Your task to perform on an android device: turn off data saver in the chrome app Image 0: 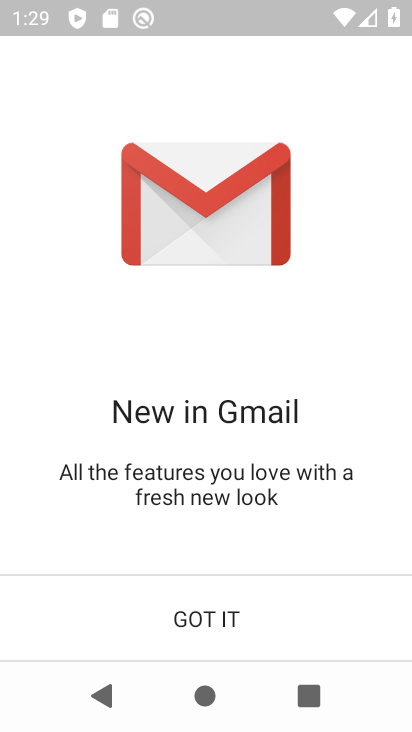
Step 0: drag from (268, 376) to (271, 241)
Your task to perform on an android device: turn off data saver in the chrome app Image 1: 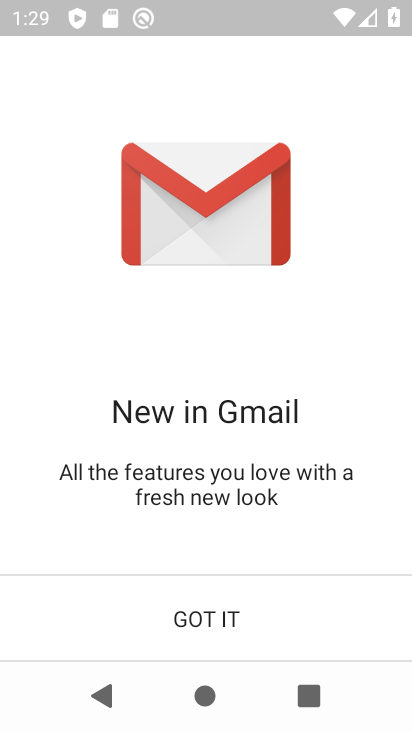
Step 1: drag from (203, 478) to (287, 167)
Your task to perform on an android device: turn off data saver in the chrome app Image 2: 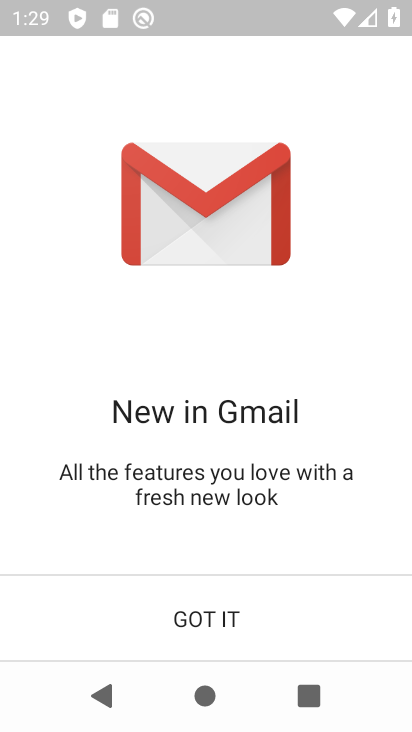
Step 2: drag from (177, 482) to (263, 189)
Your task to perform on an android device: turn off data saver in the chrome app Image 3: 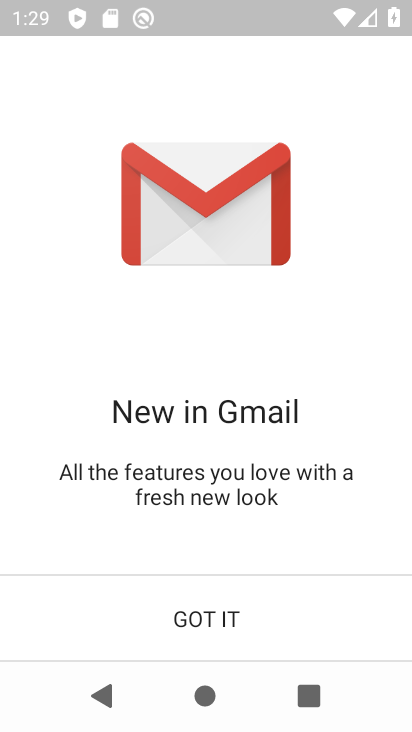
Step 3: drag from (303, 408) to (281, 264)
Your task to perform on an android device: turn off data saver in the chrome app Image 4: 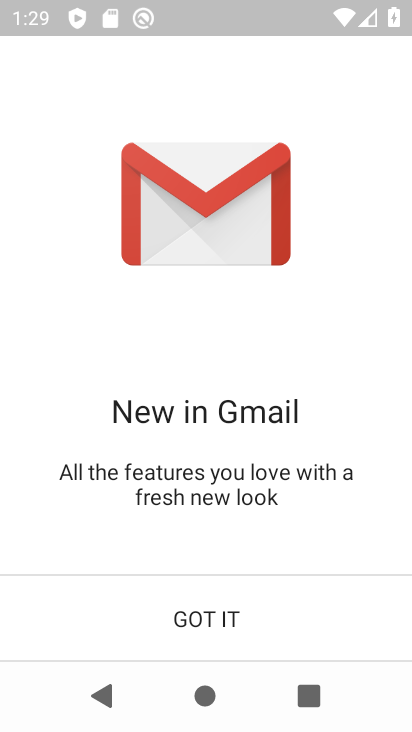
Step 4: drag from (294, 497) to (342, 266)
Your task to perform on an android device: turn off data saver in the chrome app Image 5: 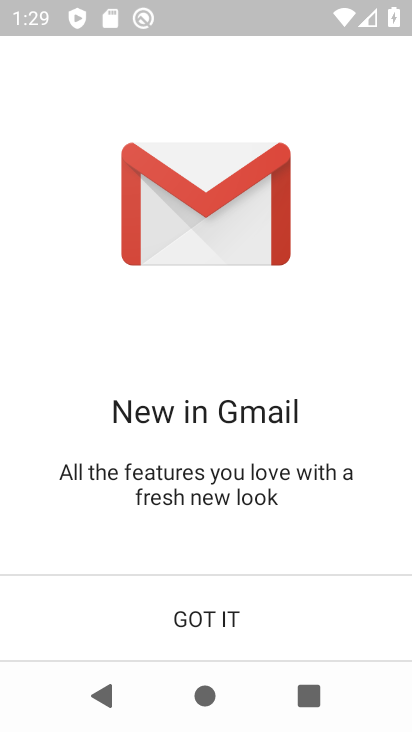
Step 5: press home button
Your task to perform on an android device: turn off data saver in the chrome app Image 6: 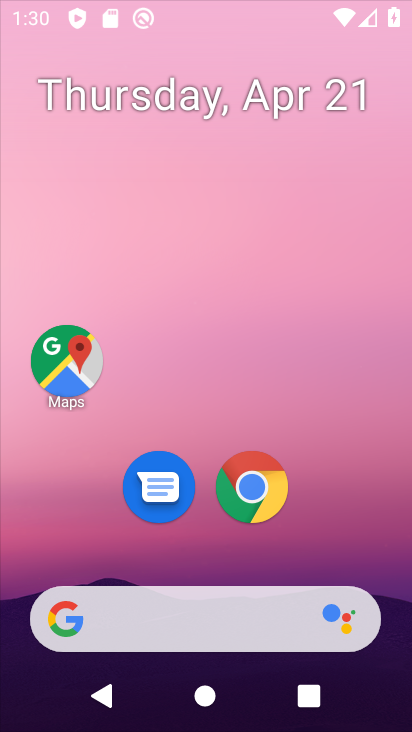
Step 6: drag from (202, 357) to (248, 177)
Your task to perform on an android device: turn off data saver in the chrome app Image 7: 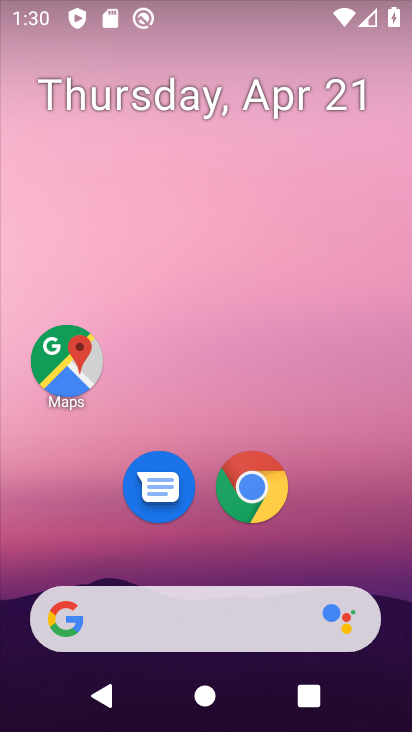
Step 7: drag from (223, 524) to (245, 184)
Your task to perform on an android device: turn off data saver in the chrome app Image 8: 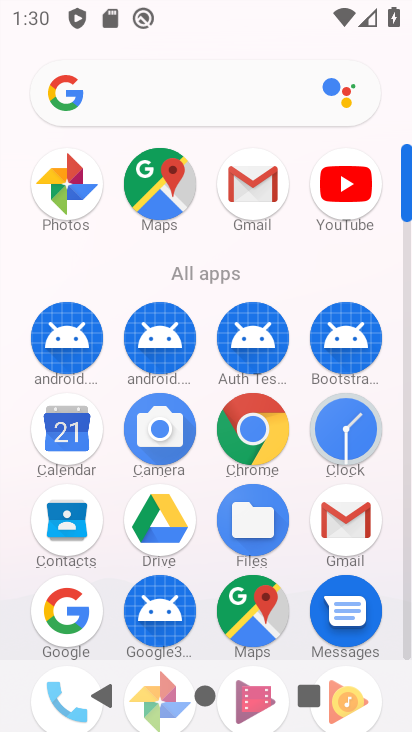
Step 8: drag from (209, 618) to (168, 195)
Your task to perform on an android device: turn off data saver in the chrome app Image 9: 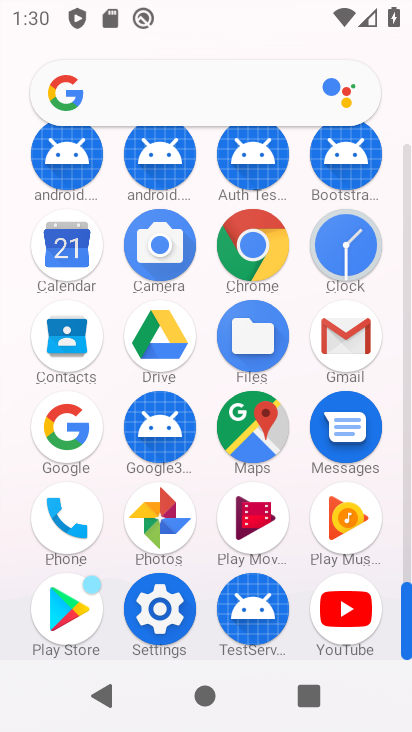
Step 9: drag from (207, 644) to (198, 311)
Your task to perform on an android device: turn off data saver in the chrome app Image 10: 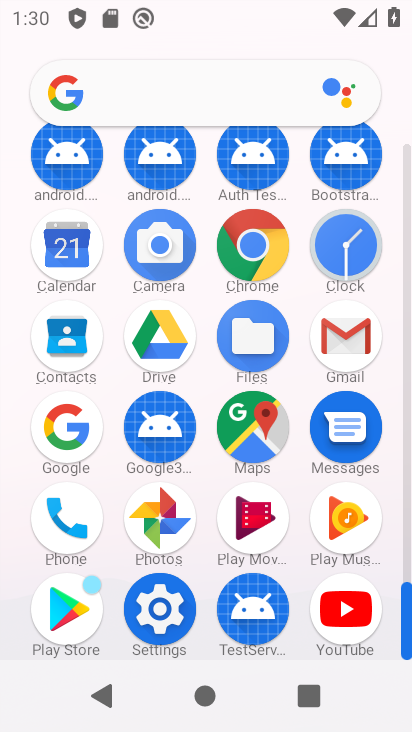
Step 10: click (257, 244)
Your task to perform on an android device: turn off data saver in the chrome app Image 11: 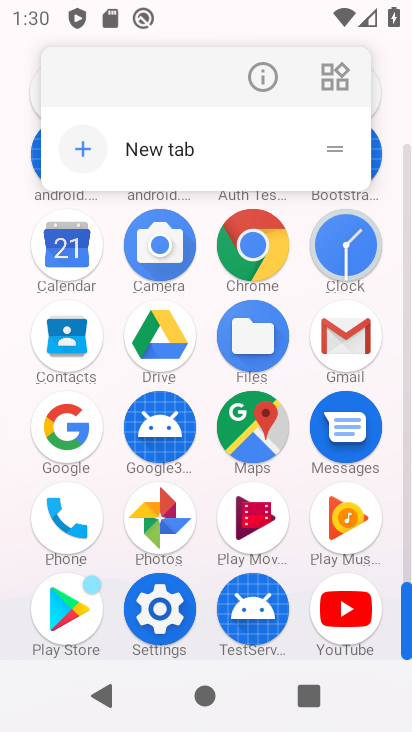
Step 11: click (245, 241)
Your task to perform on an android device: turn off data saver in the chrome app Image 12: 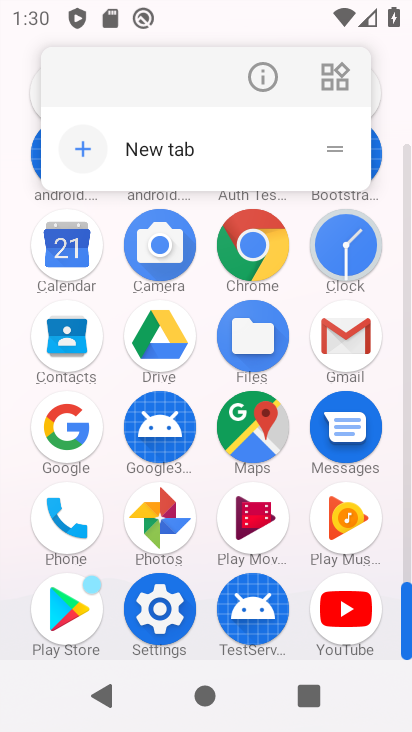
Step 12: click (261, 80)
Your task to perform on an android device: turn off data saver in the chrome app Image 13: 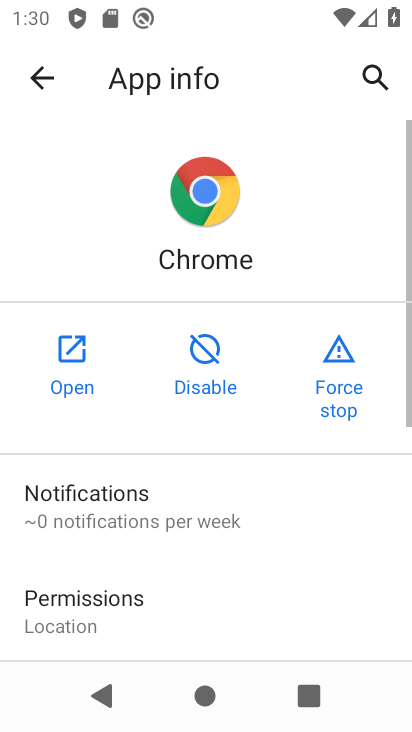
Step 13: click (74, 361)
Your task to perform on an android device: turn off data saver in the chrome app Image 14: 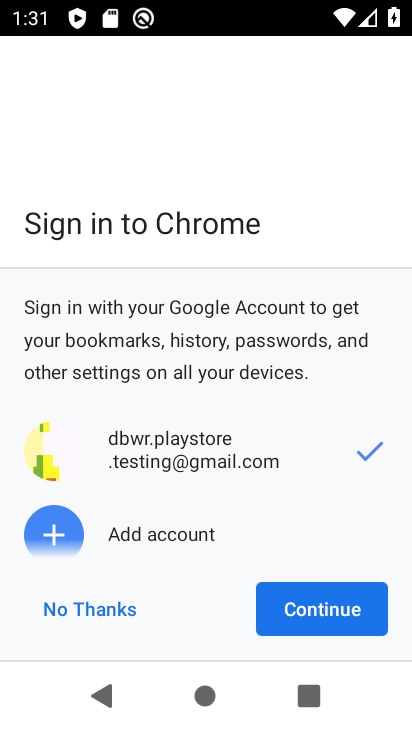
Step 14: click (74, 601)
Your task to perform on an android device: turn off data saver in the chrome app Image 15: 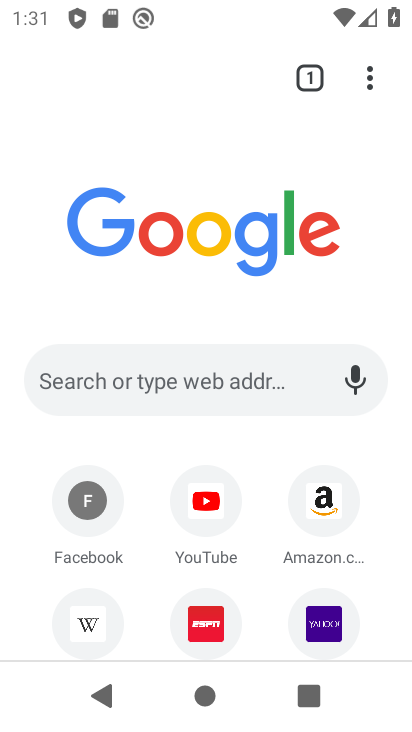
Step 15: drag from (222, 491) to (286, 197)
Your task to perform on an android device: turn off data saver in the chrome app Image 16: 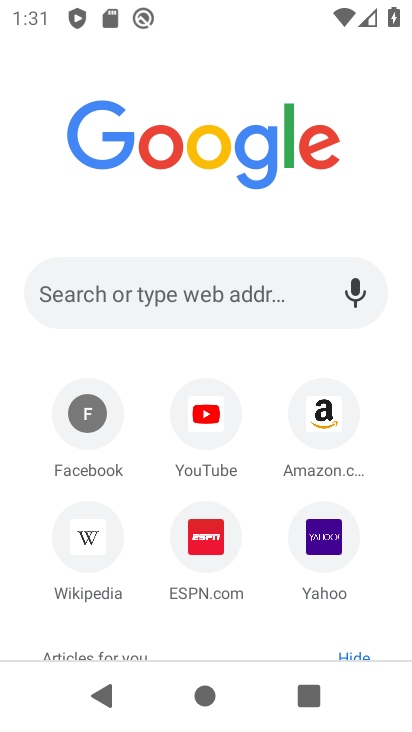
Step 16: drag from (273, 556) to (297, 210)
Your task to perform on an android device: turn off data saver in the chrome app Image 17: 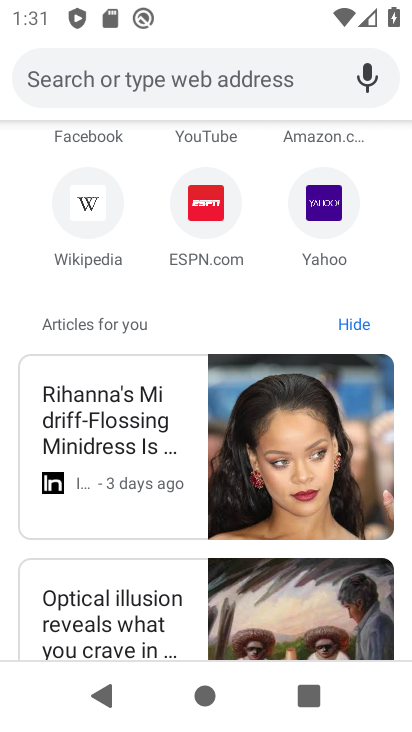
Step 17: drag from (288, 188) to (347, 727)
Your task to perform on an android device: turn off data saver in the chrome app Image 18: 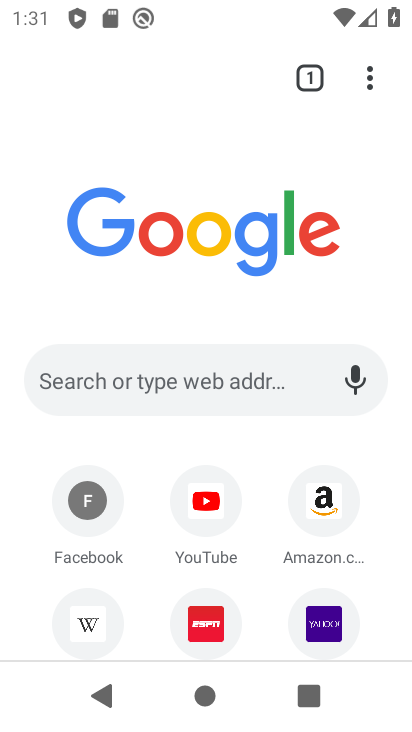
Step 18: drag from (368, 81) to (135, 550)
Your task to perform on an android device: turn off data saver in the chrome app Image 19: 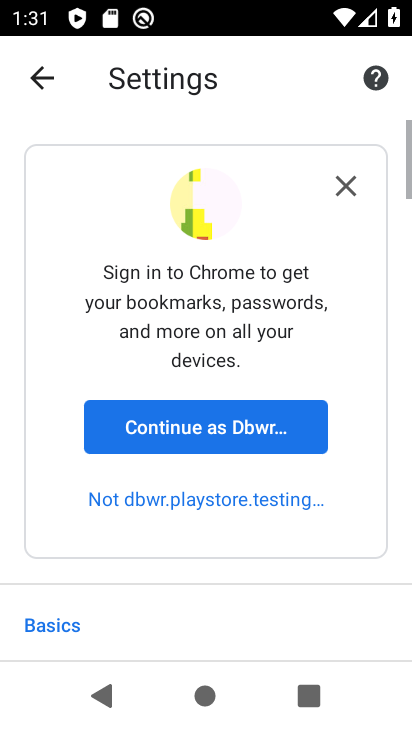
Step 19: drag from (158, 527) to (348, 12)
Your task to perform on an android device: turn off data saver in the chrome app Image 20: 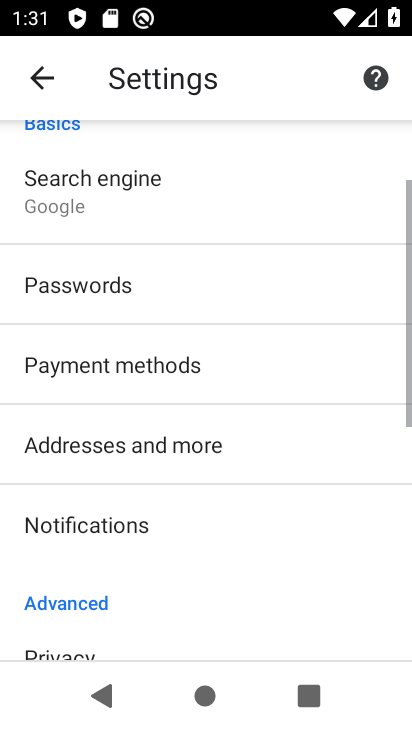
Step 20: drag from (248, 570) to (271, 60)
Your task to perform on an android device: turn off data saver in the chrome app Image 21: 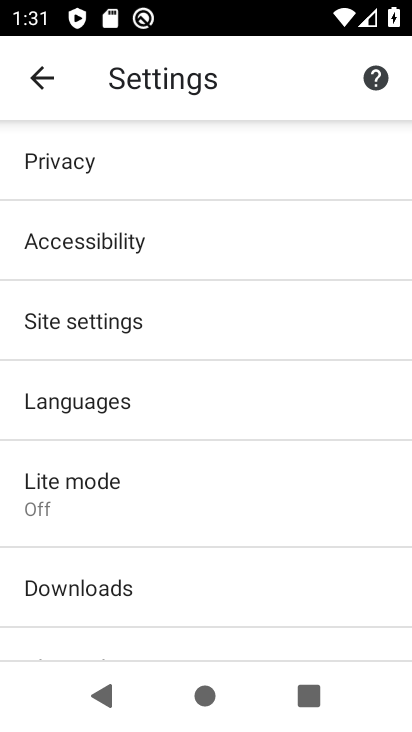
Step 21: click (129, 496)
Your task to perform on an android device: turn off data saver in the chrome app Image 22: 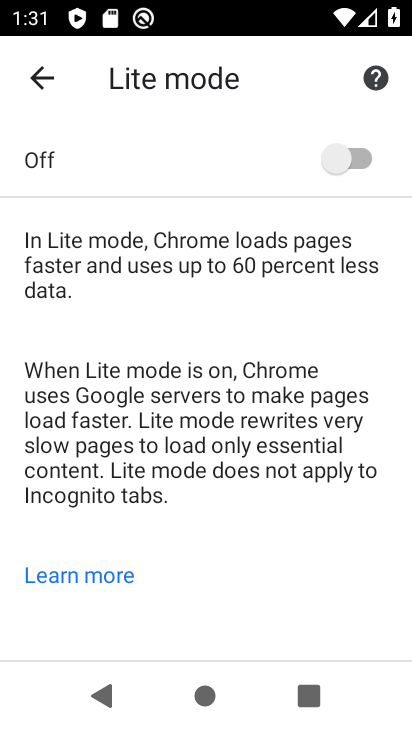
Step 22: click (284, 157)
Your task to perform on an android device: turn off data saver in the chrome app Image 23: 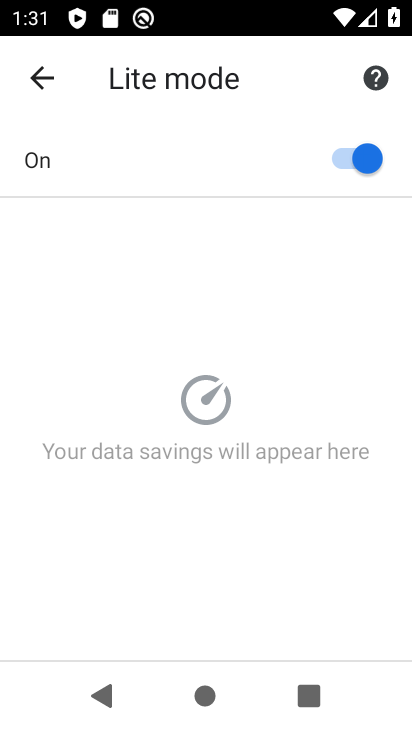
Step 23: task complete